Your task to perform on an android device: Clear the cart on costco.com. Image 0: 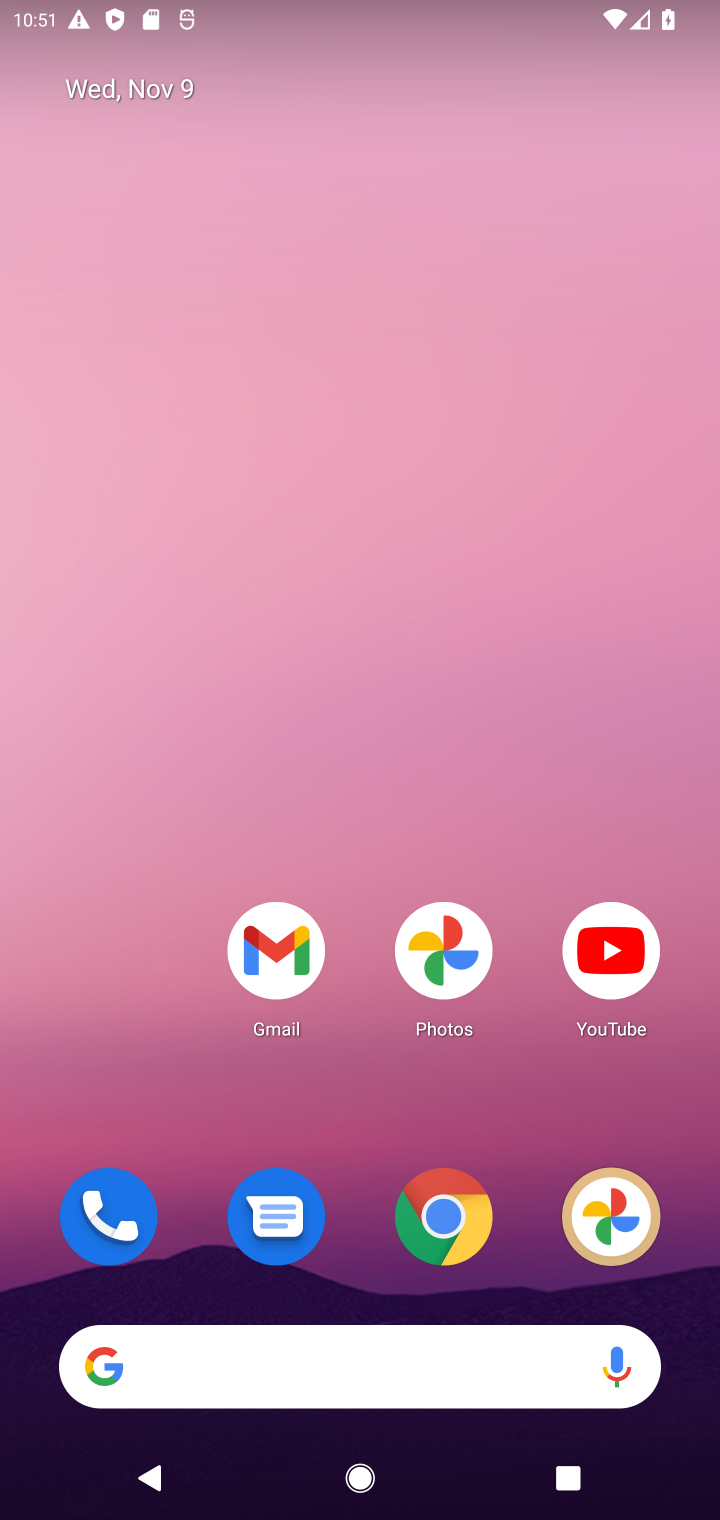
Step 0: drag from (368, 1111) to (352, 121)
Your task to perform on an android device: Clear the cart on costco.com. Image 1: 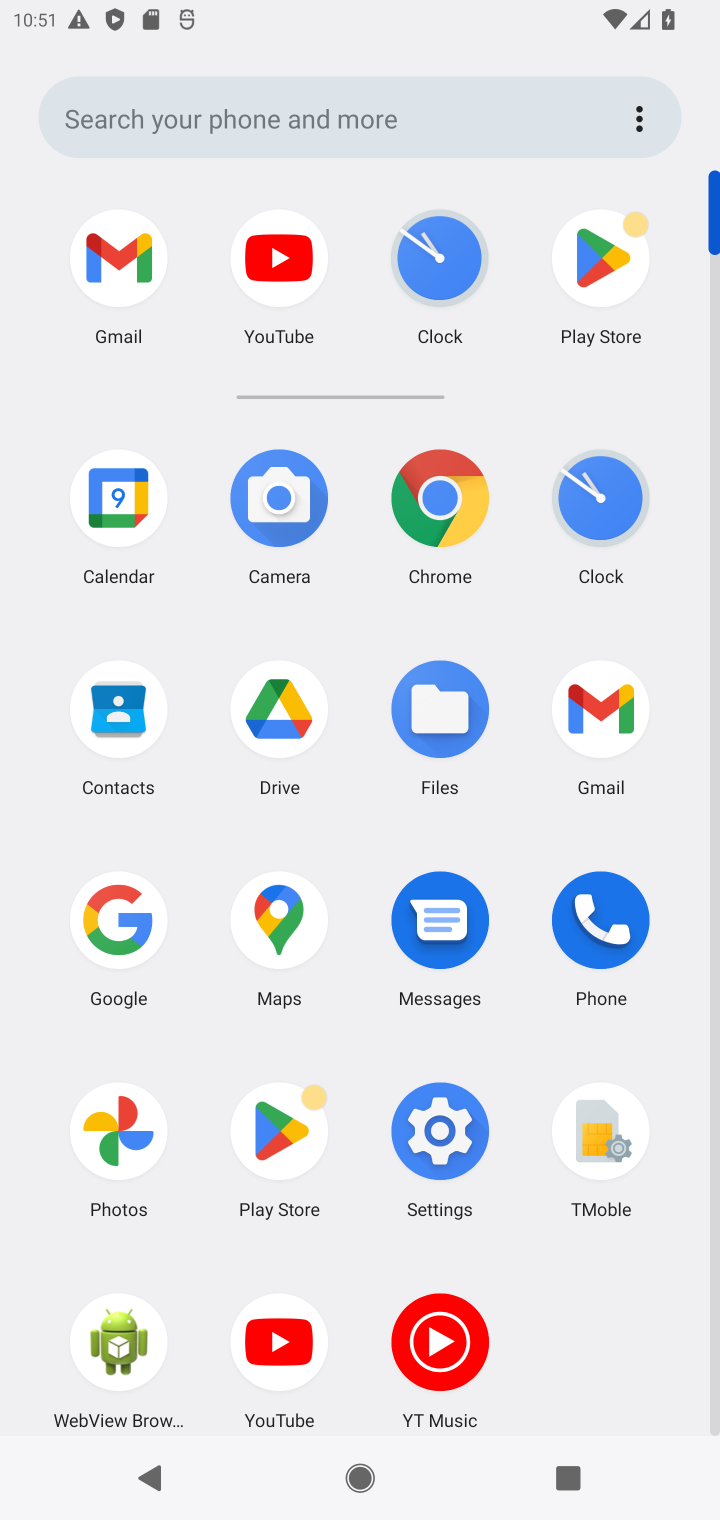
Step 1: click (448, 497)
Your task to perform on an android device: Clear the cart on costco.com. Image 2: 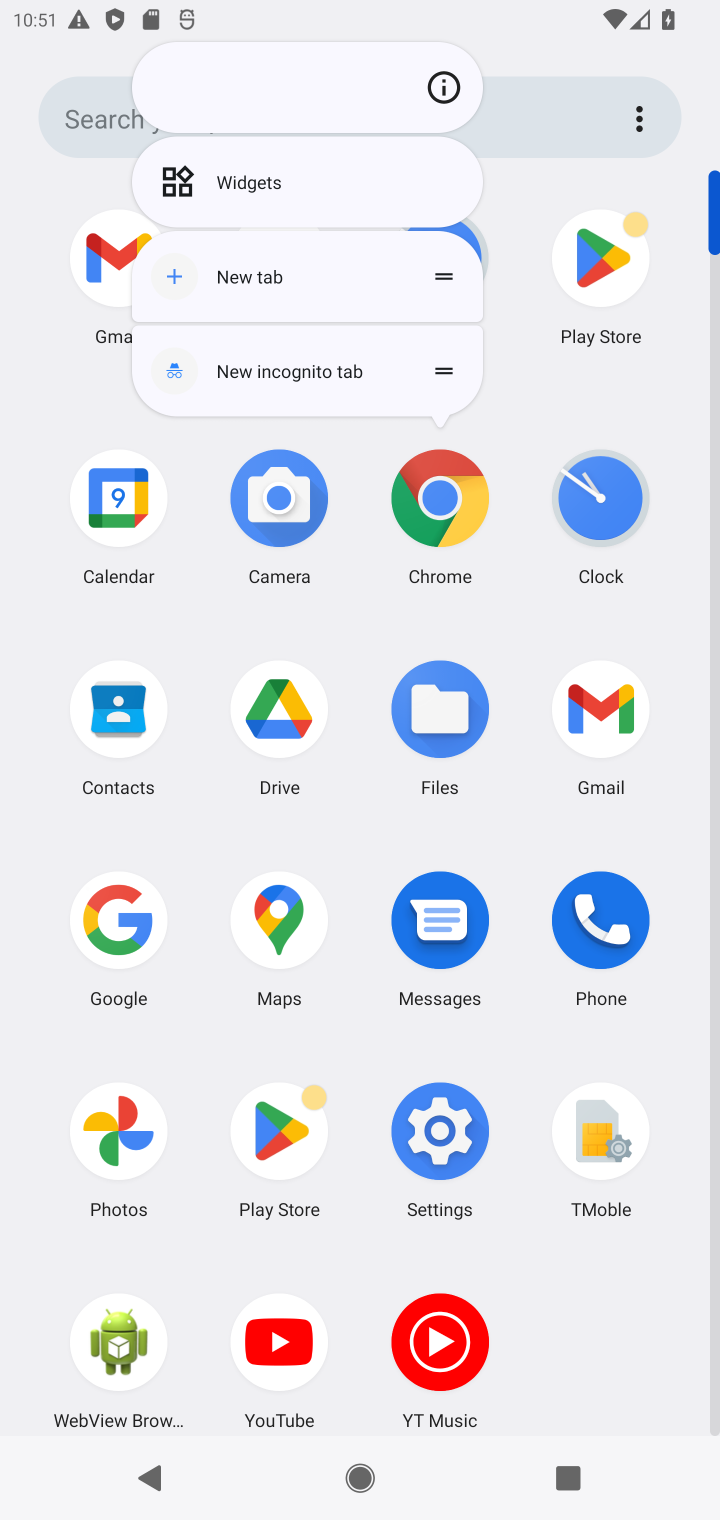
Step 2: click (448, 497)
Your task to perform on an android device: Clear the cart on costco.com. Image 3: 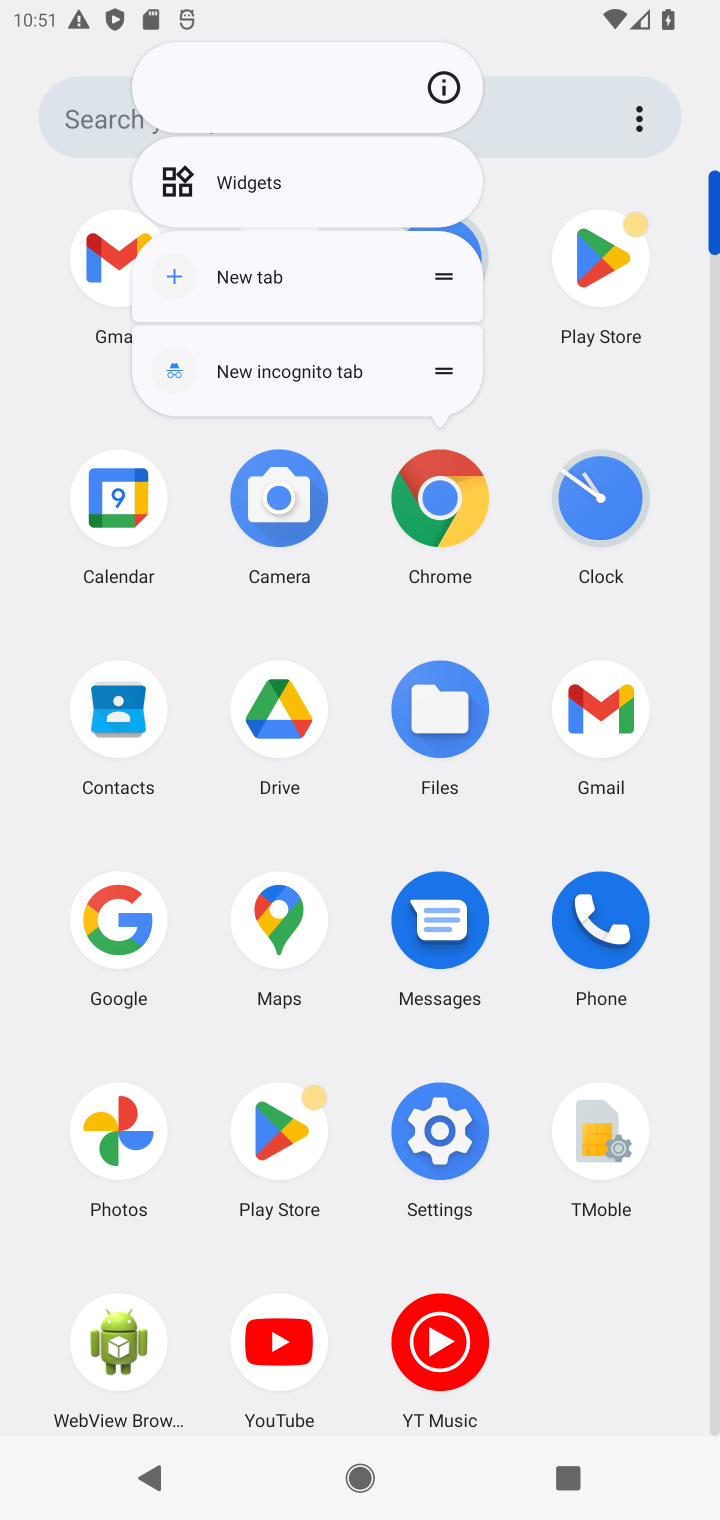
Step 3: click (433, 500)
Your task to perform on an android device: Clear the cart on costco.com. Image 4: 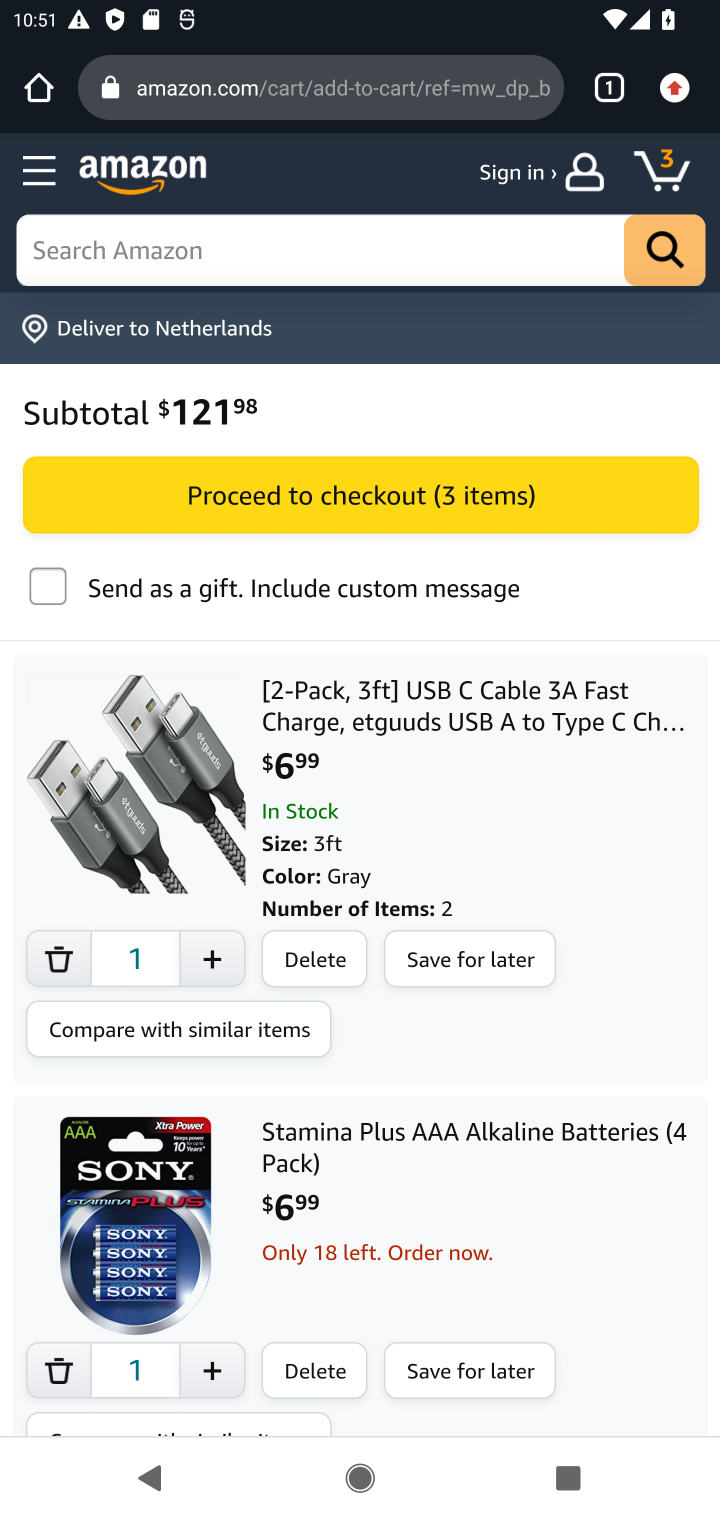
Step 4: click (405, 105)
Your task to perform on an android device: Clear the cart on costco.com. Image 5: 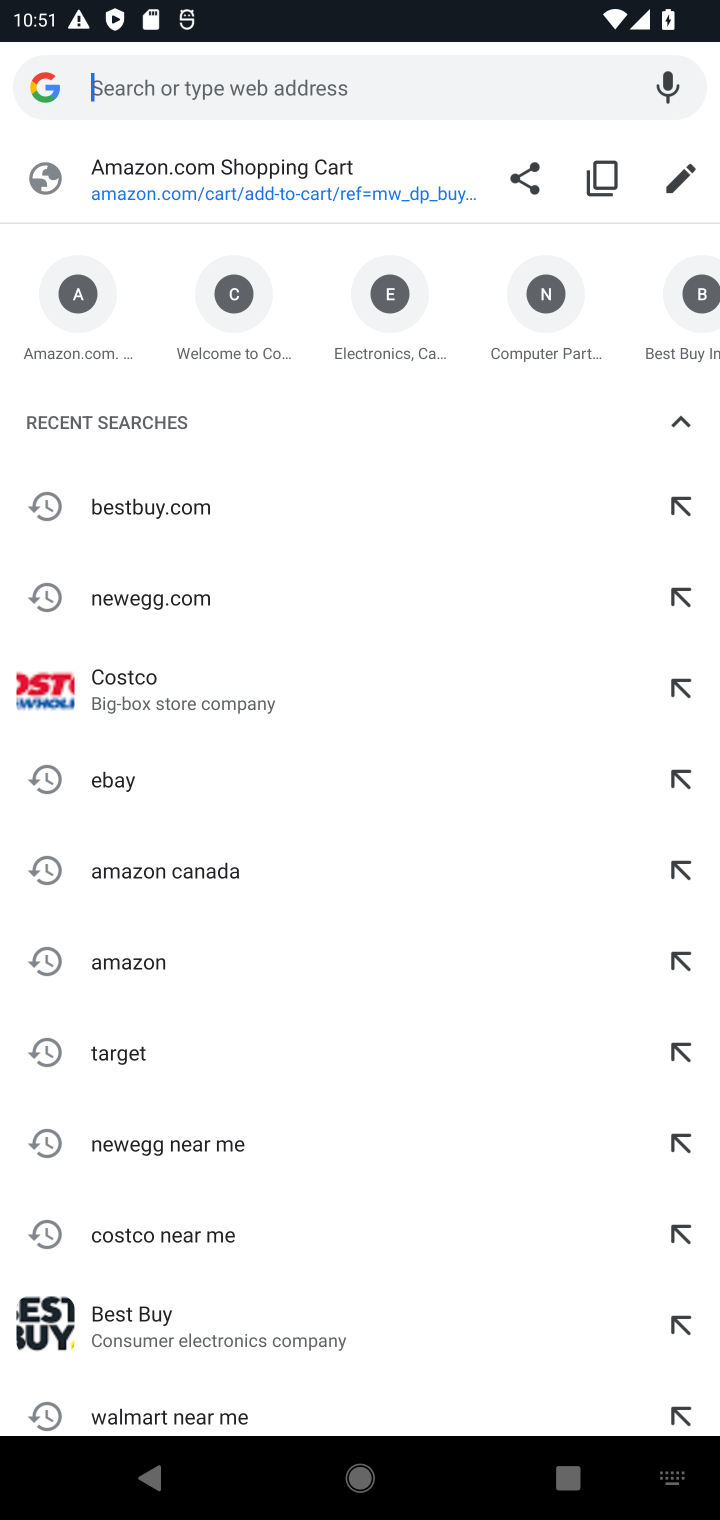
Step 5: type "costco.com"
Your task to perform on an android device: Clear the cart on costco.com. Image 6: 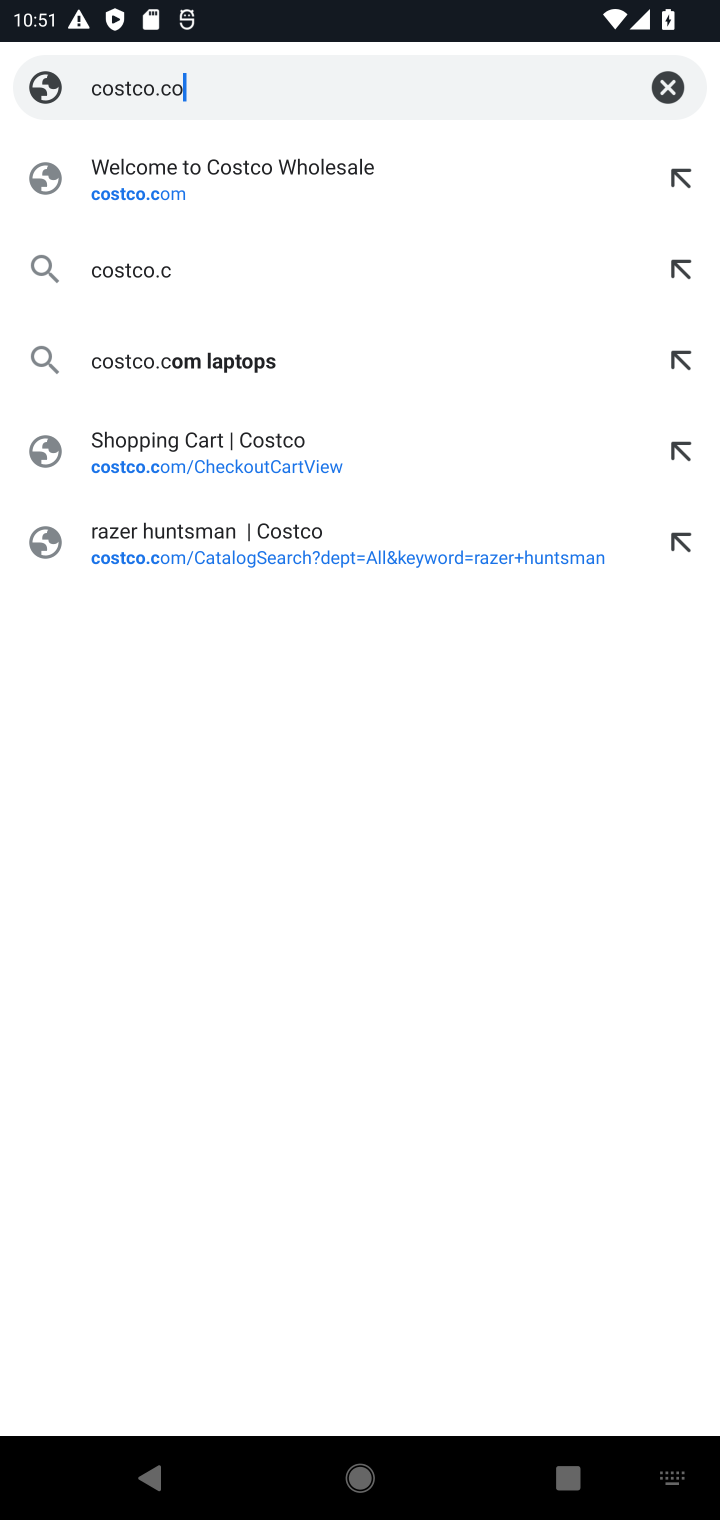
Step 6: press enter
Your task to perform on an android device: Clear the cart on costco.com. Image 7: 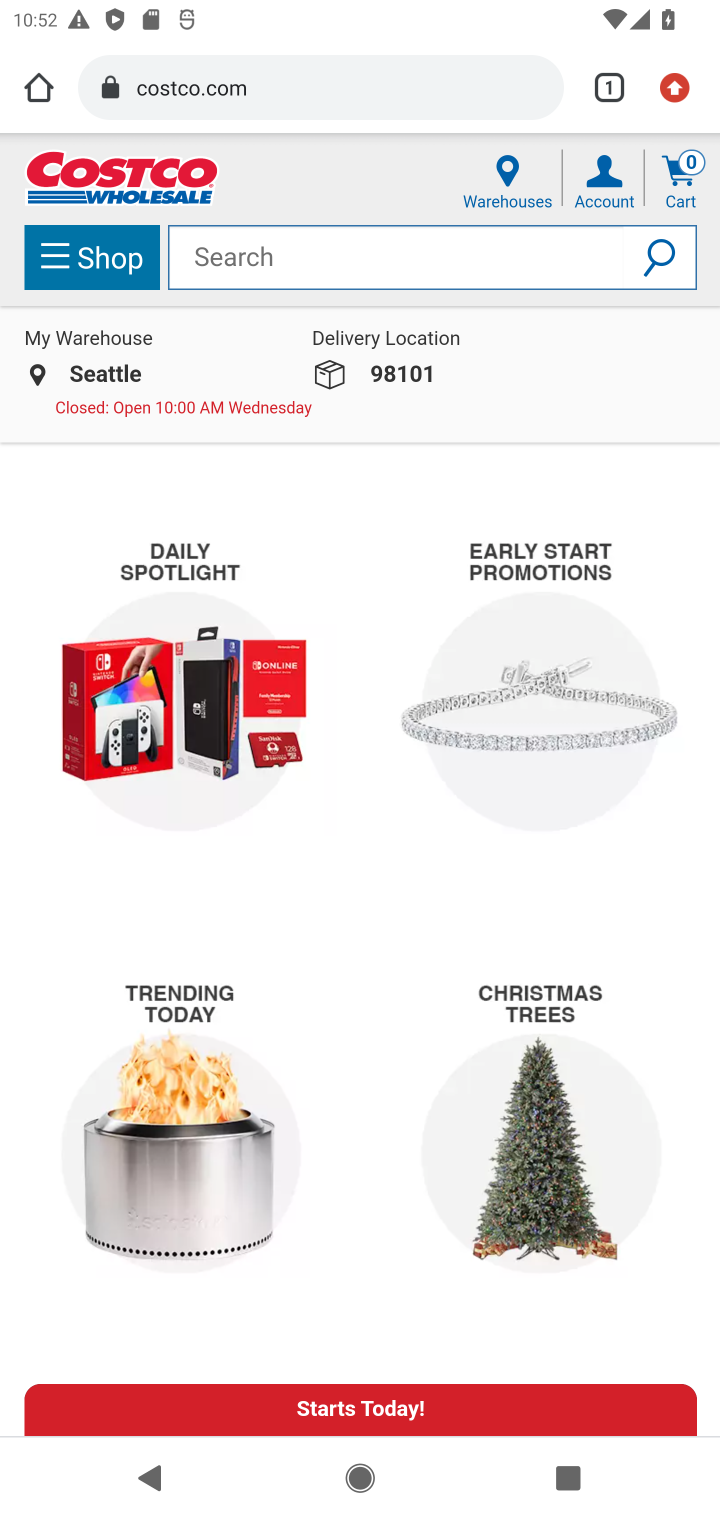
Step 7: click (683, 166)
Your task to perform on an android device: Clear the cart on costco.com. Image 8: 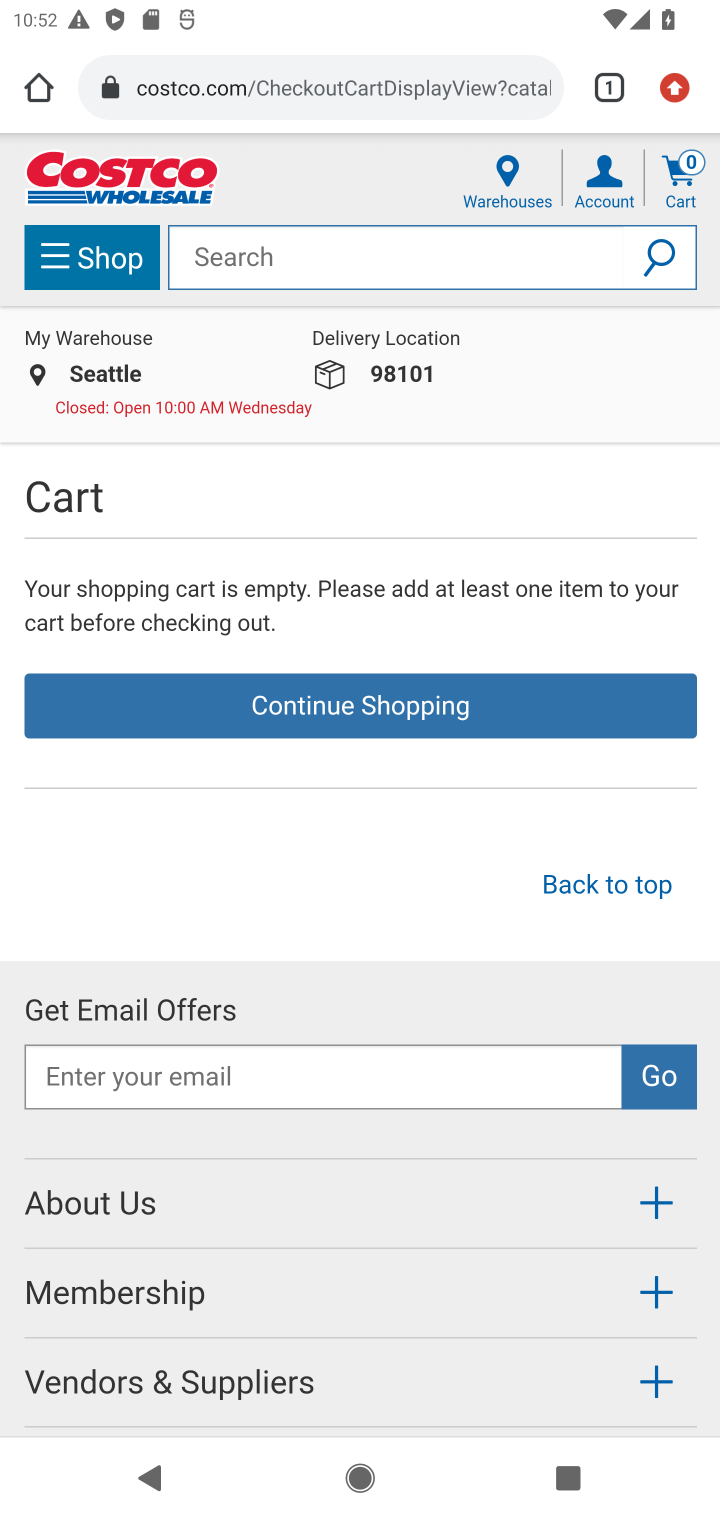
Step 8: task complete